Your task to perform on an android device: Open Chrome and go to settings Image 0: 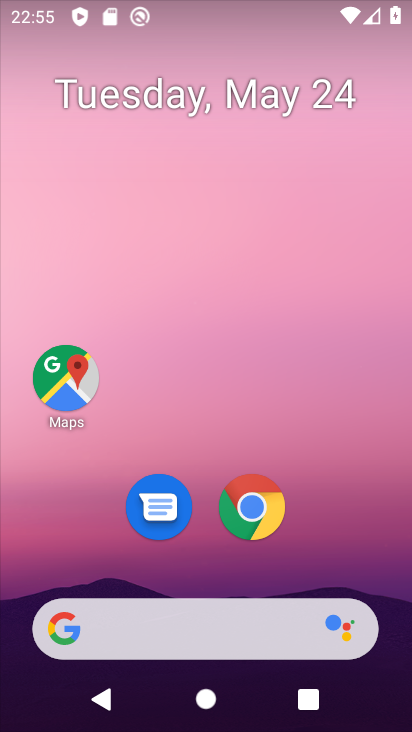
Step 0: drag from (273, 519) to (290, 302)
Your task to perform on an android device: Open Chrome and go to settings Image 1: 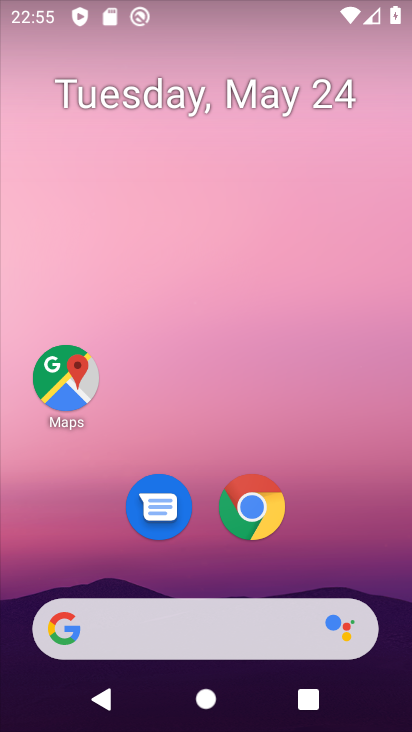
Step 1: drag from (279, 603) to (335, 8)
Your task to perform on an android device: Open Chrome and go to settings Image 2: 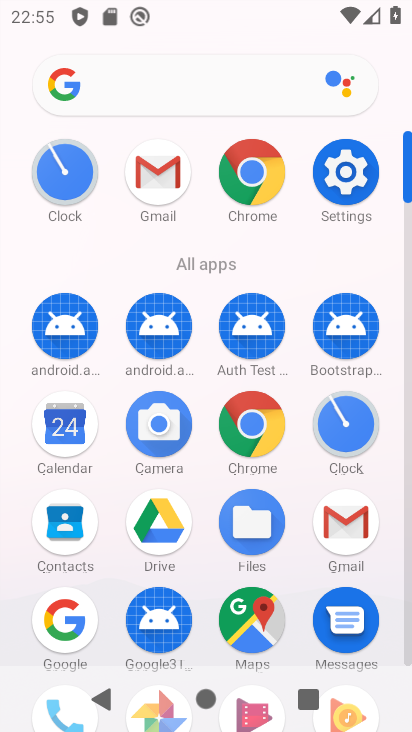
Step 2: click (268, 431)
Your task to perform on an android device: Open Chrome and go to settings Image 3: 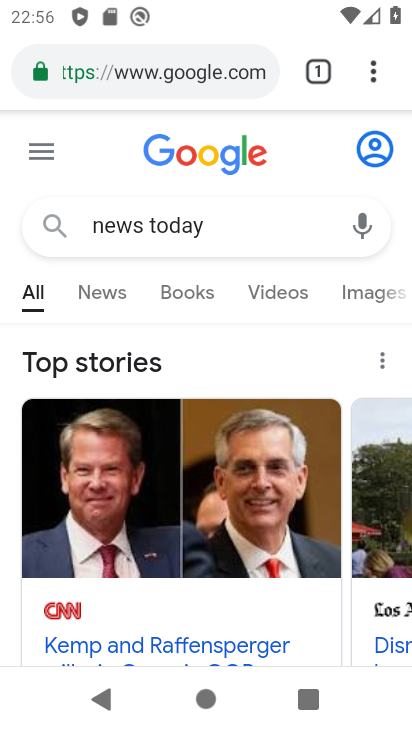
Step 3: drag from (340, 400) to (307, 661)
Your task to perform on an android device: Open Chrome and go to settings Image 4: 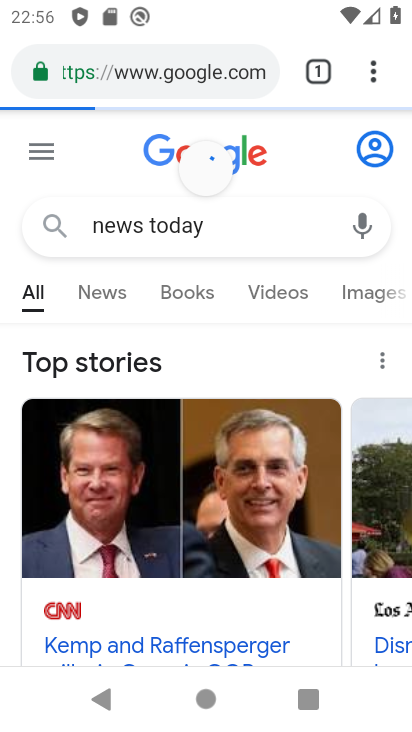
Step 4: click (373, 81)
Your task to perform on an android device: Open Chrome and go to settings Image 5: 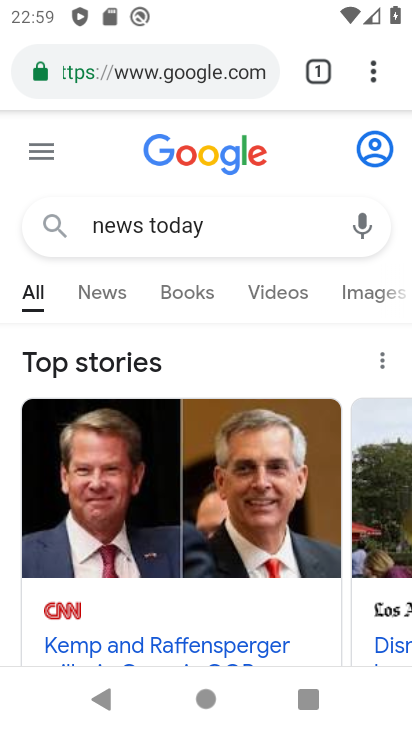
Step 5: press home button
Your task to perform on an android device: Open Chrome and go to settings Image 6: 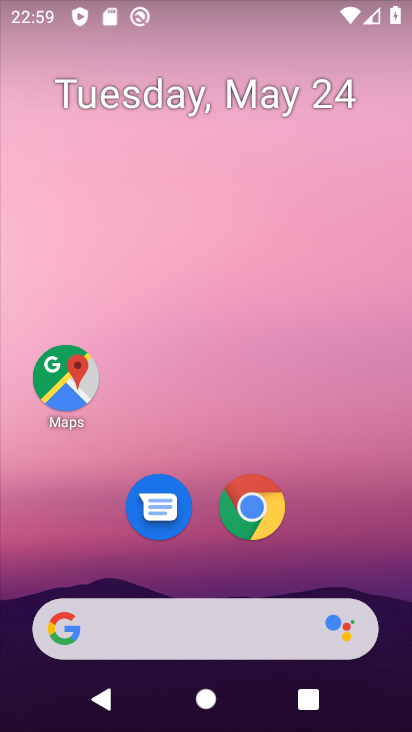
Step 6: drag from (277, 580) to (342, 0)
Your task to perform on an android device: Open Chrome and go to settings Image 7: 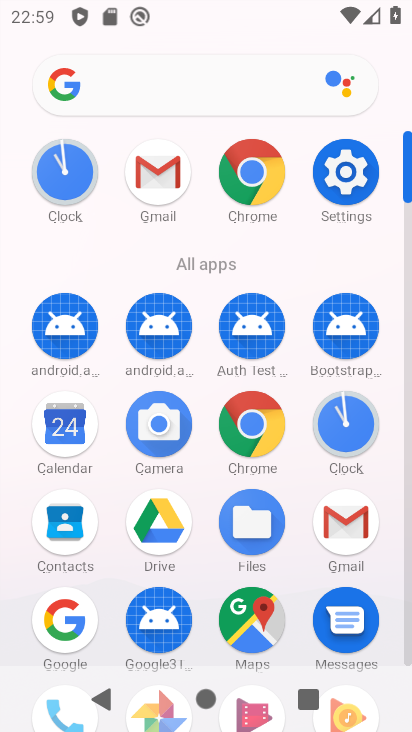
Step 7: click (267, 419)
Your task to perform on an android device: Open Chrome and go to settings Image 8: 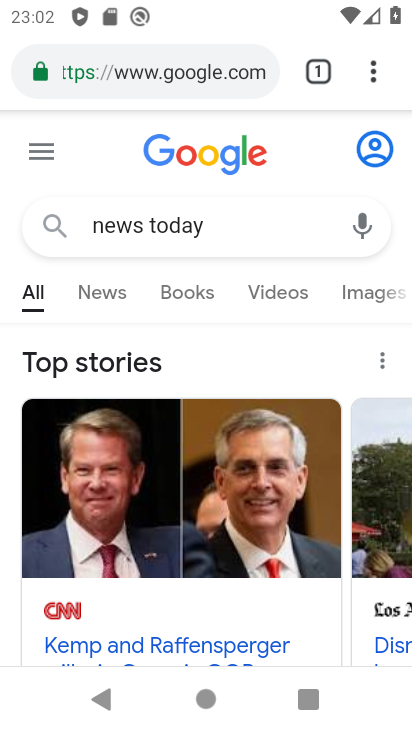
Step 8: press home button
Your task to perform on an android device: Open Chrome and go to settings Image 9: 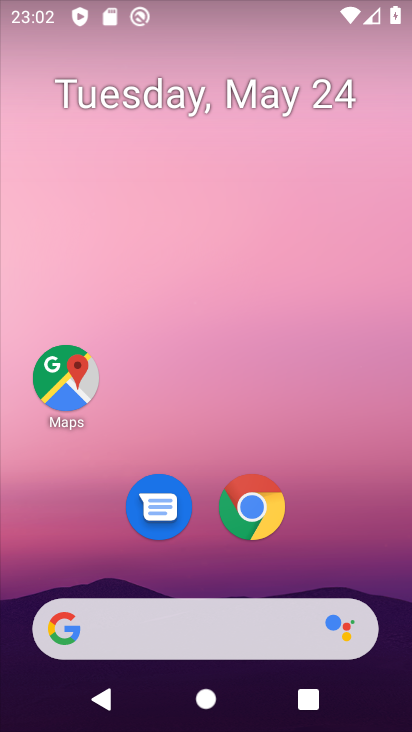
Step 9: drag from (335, 645) to (356, 177)
Your task to perform on an android device: Open Chrome and go to settings Image 10: 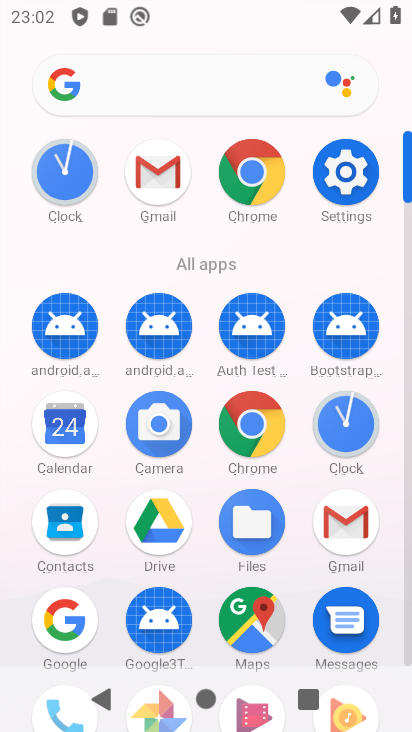
Step 10: click (245, 428)
Your task to perform on an android device: Open Chrome and go to settings Image 11: 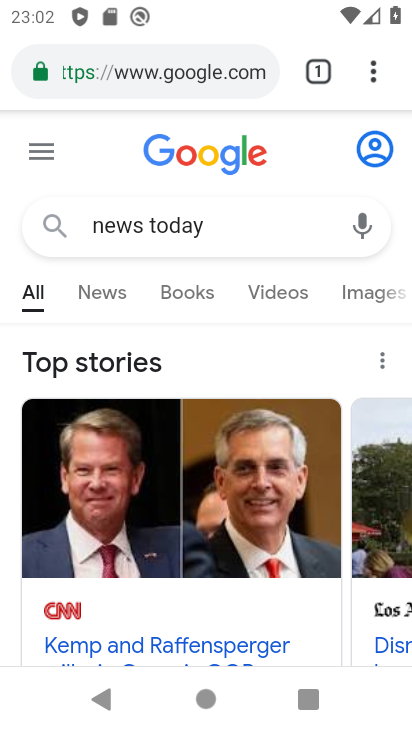
Step 11: task complete